Your task to perform on an android device: Search for pizza restaurants on Maps Image 0: 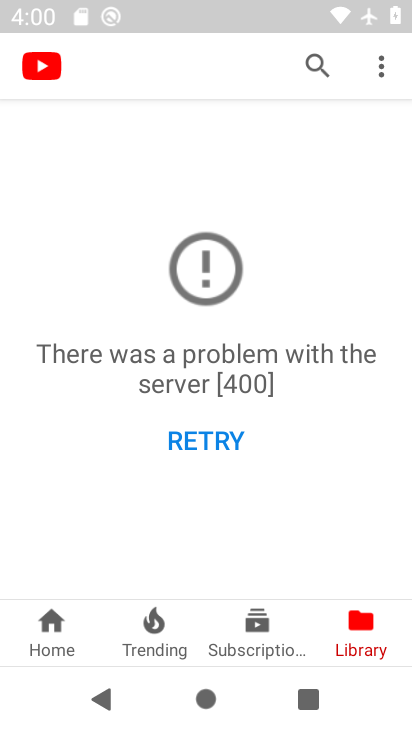
Step 0: press home button
Your task to perform on an android device: Search for pizza restaurants on Maps Image 1: 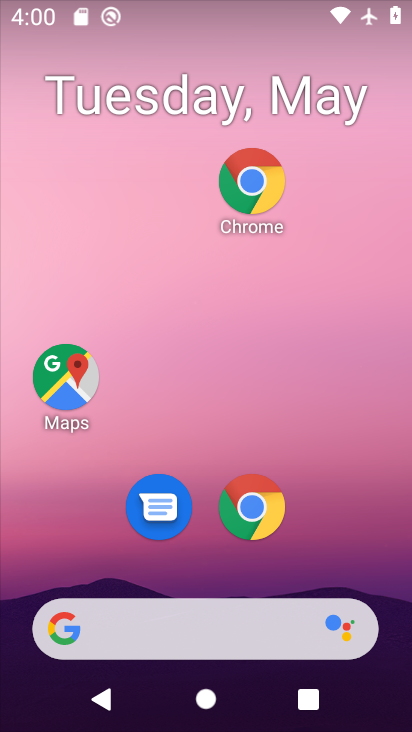
Step 1: drag from (340, 544) to (100, 0)
Your task to perform on an android device: Search for pizza restaurants on Maps Image 2: 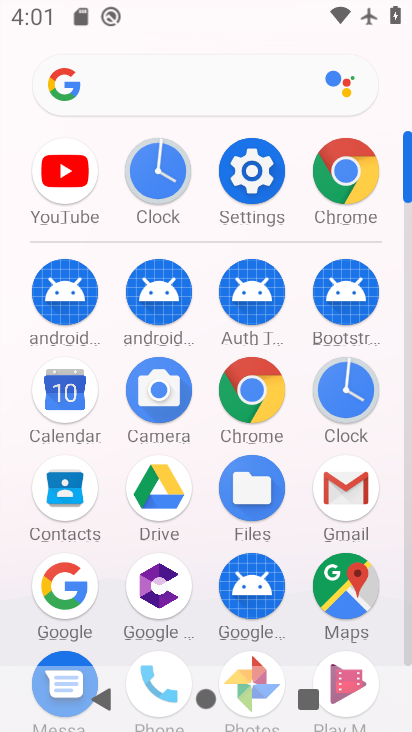
Step 2: click (343, 594)
Your task to perform on an android device: Search for pizza restaurants on Maps Image 3: 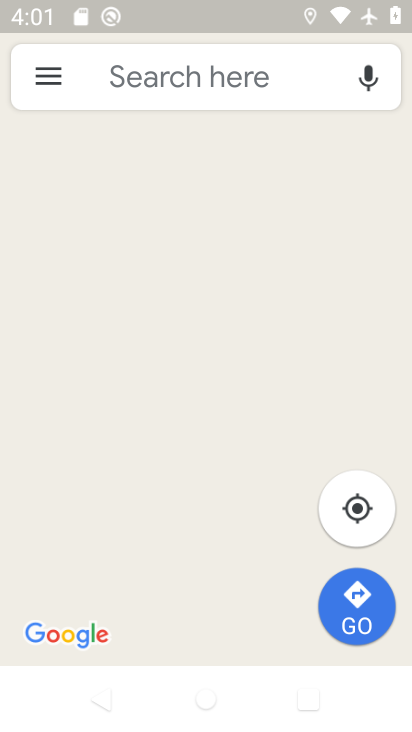
Step 3: click (173, 87)
Your task to perform on an android device: Search for pizza restaurants on Maps Image 4: 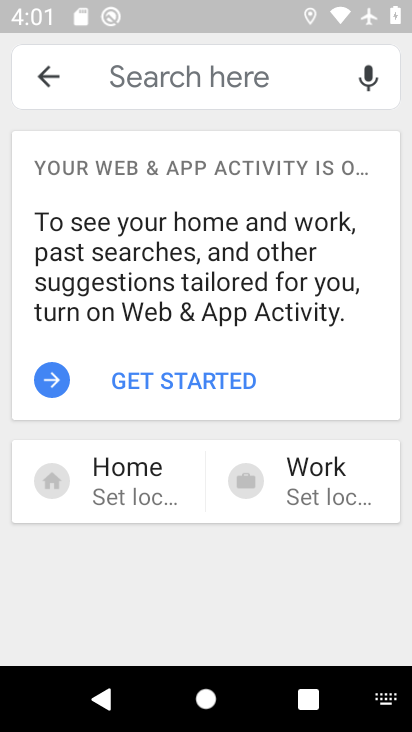
Step 4: type "pizza resturents"
Your task to perform on an android device: Search for pizza restaurants on Maps Image 5: 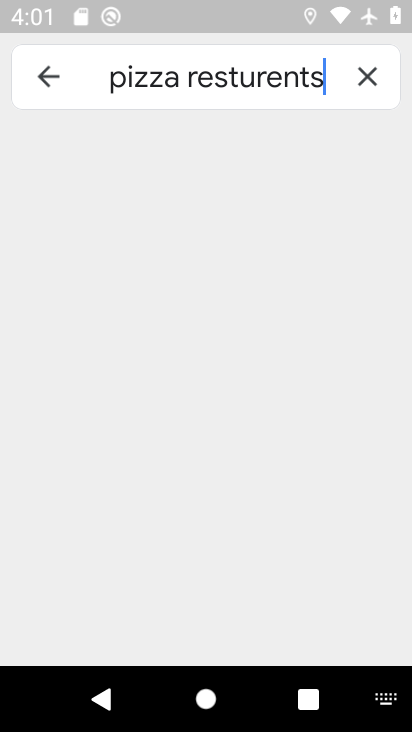
Step 5: press enter
Your task to perform on an android device: Search for pizza restaurants on Maps Image 6: 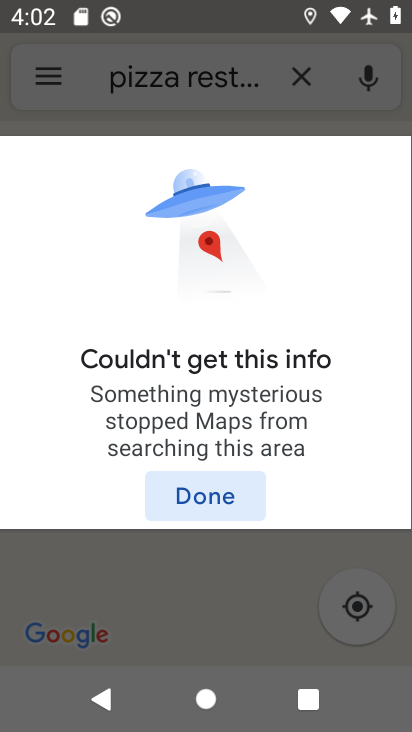
Step 6: task complete